Your task to perform on an android device: Open Google Maps and go to "Timeline" Image 0: 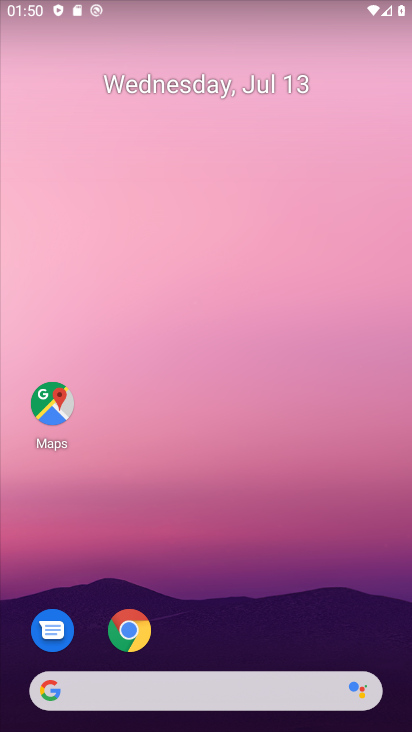
Step 0: click (54, 417)
Your task to perform on an android device: Open Google Maps and go to "Timeline" Image 1: 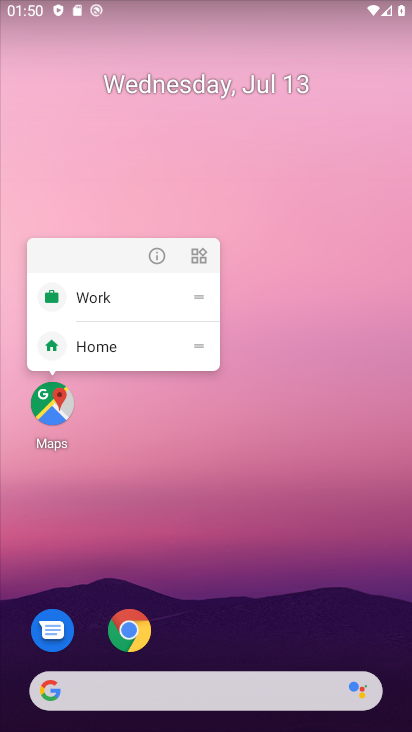
Step 1: click (64, 396)
Your task to perform on an android device: Open Google Maps and go to "Timeline" Image 2: 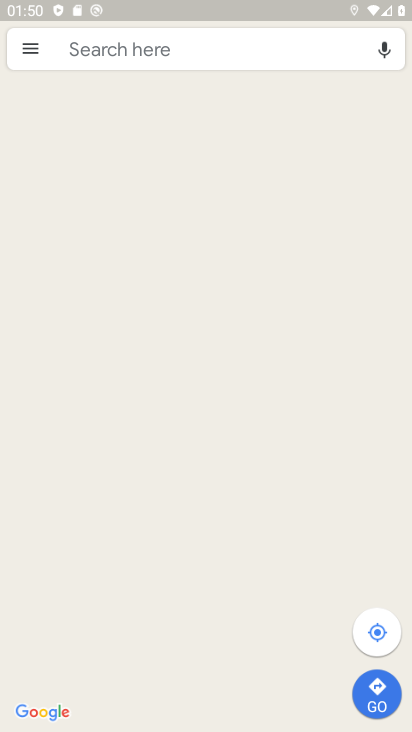
Step 2: click (37, 55)
Your task to perform on an android device: Open Google Maps and go to "Timeline" Image 3: 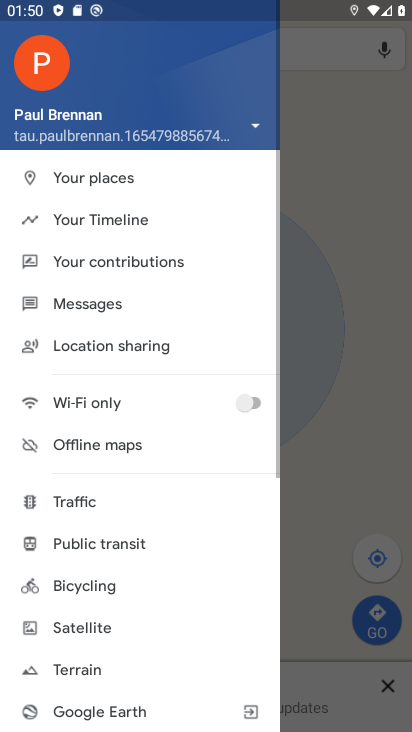
Step 3: click (112, 226)
Your task to perform on an android device: Open Google Maps and go to "Timeline" Image 4: 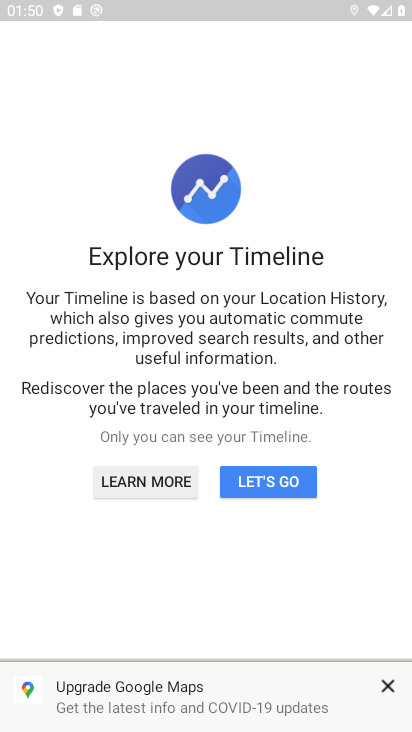
Step 4: click (243, 479)
Your task to perform on an android device: Open Google Maps and go to "Timeline" Image 5: 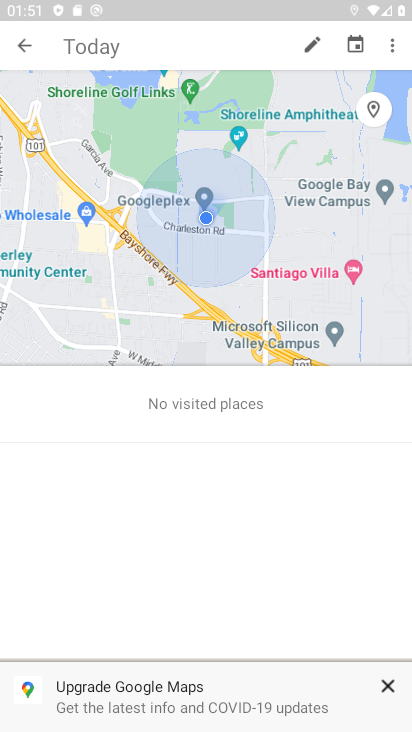
Step 5: task complete